Your task to perform on an android device: toggle translation in the chrome app Image 0: 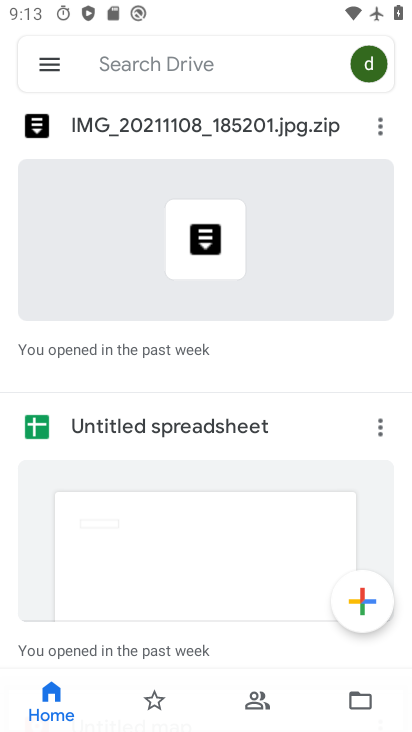
Step 0: press home button
Your task to perform on an android device: toggle translation in the chrome app Image 1: 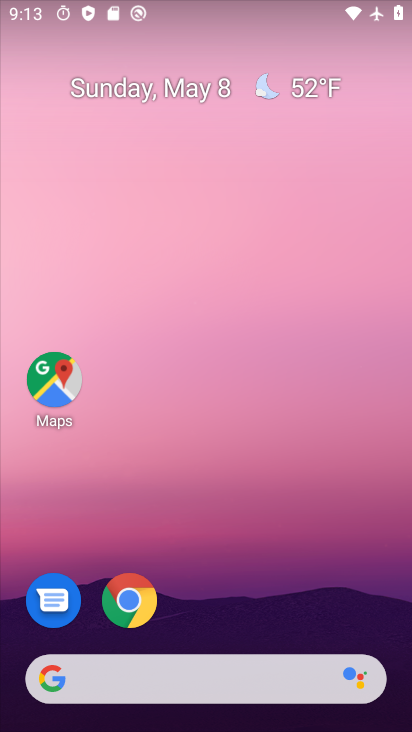
Step 1: click (133, 618)
Your task to perform on an android device: toggle translation in the chrome app Image 2: 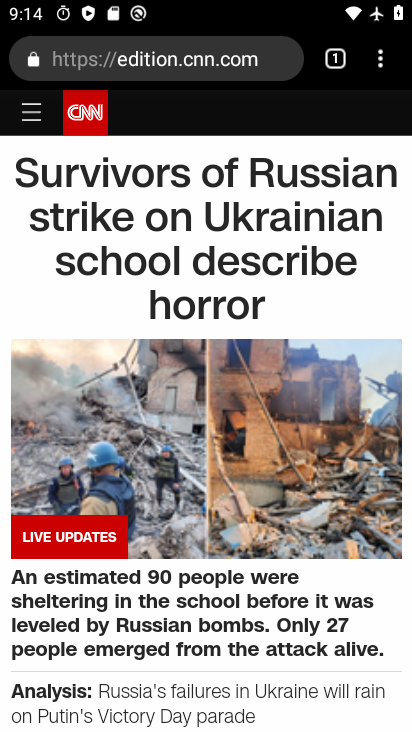
Step 2: drag from (384, 64) to (244, 627)
Your task to perform on an android device: toggle translation in the chrome app Image 3: 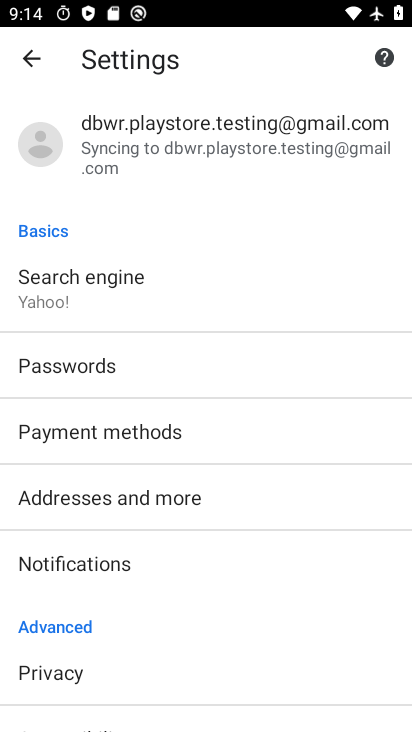
Step 3: drag from (203, 673) to (215, 207)
Your task to perform on an android device: toggle translation in the chrome app Image 4: 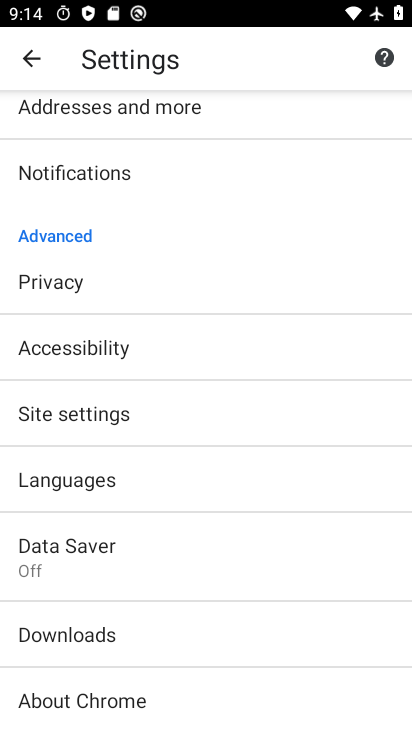
Step 4: click (121, 484)
Your task to perform on an android device: toggle translation in the chrome app Image 5: 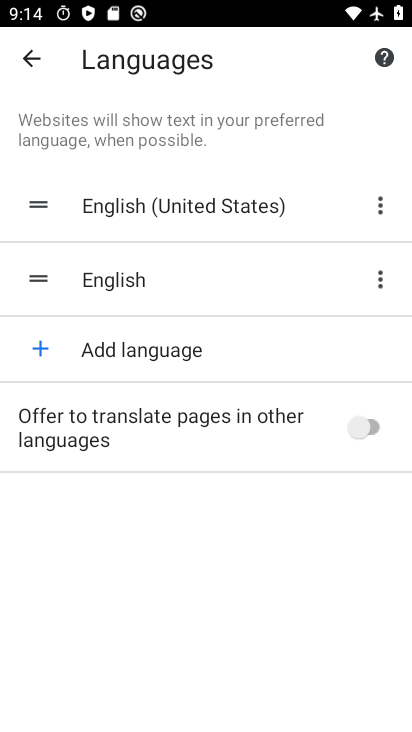
Step 5: click (360, 424)
Your task to perform on an android device: toggle translation in the chrome app Image 6: 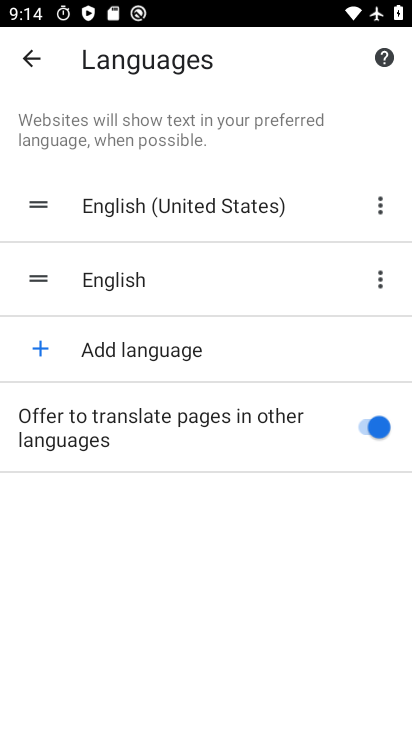
Step 6: task complete